Your task to perform on an android device: Open Amazon Image 0: 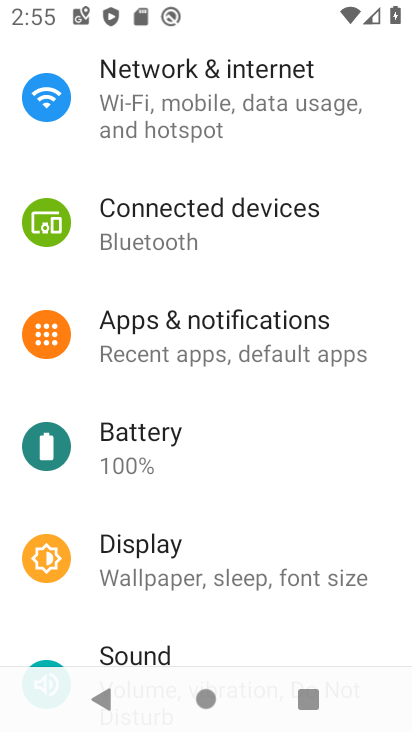
Step 0: press home button
Your task to perform on an android device: Open Amazon Image 1: 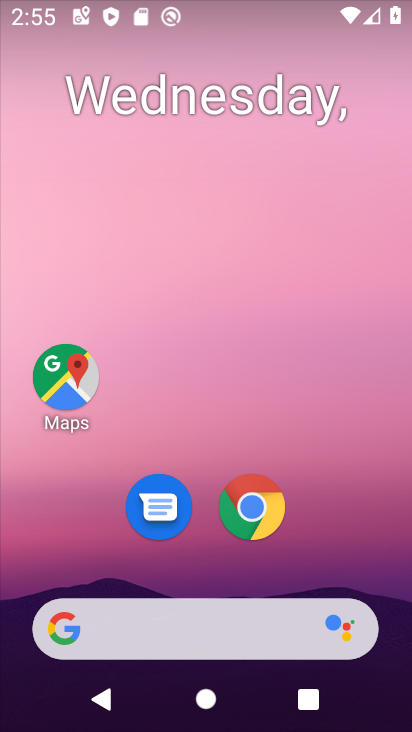
Step 1: click (258, 505)
Your task to perform on an android device: Open Amazon Image 2: 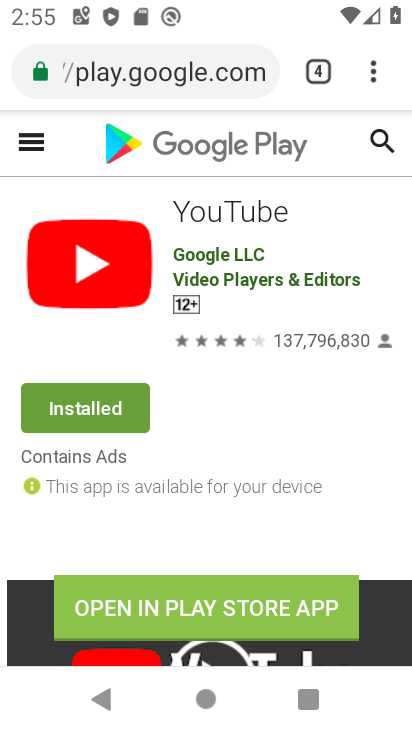
Step 2: click (328, 74)
Your task to perform on an android device: Open Amazon Image 3: 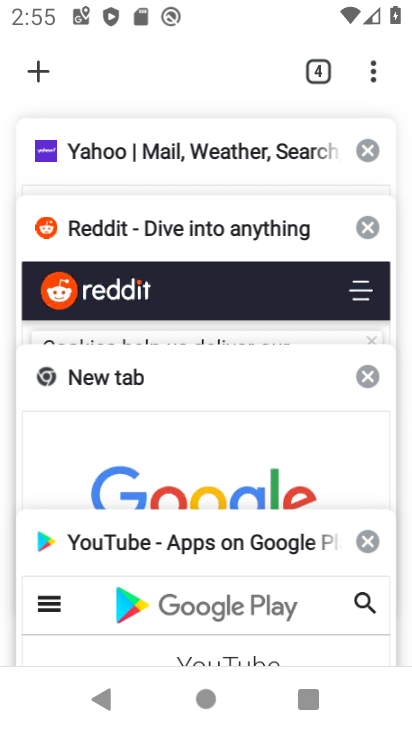
Step 3: drag from (223, 150) to (196, 546)
Your task to perform on an android device: Open Amazon Image 4: 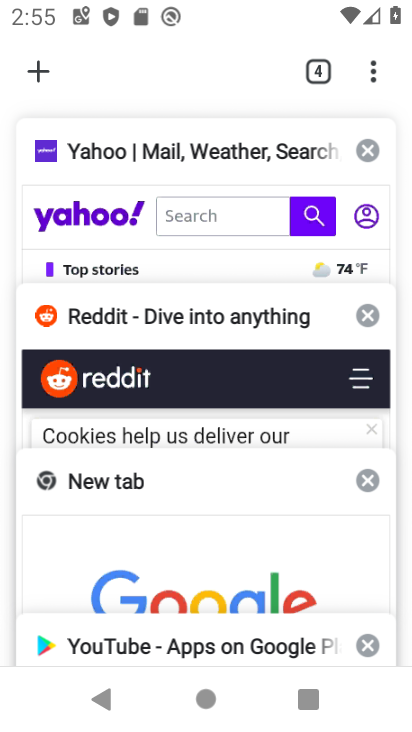
Step 4: drag from (210, 176) to (201, 463)
Your task to perform on an android device: Open Amazon Image 5: 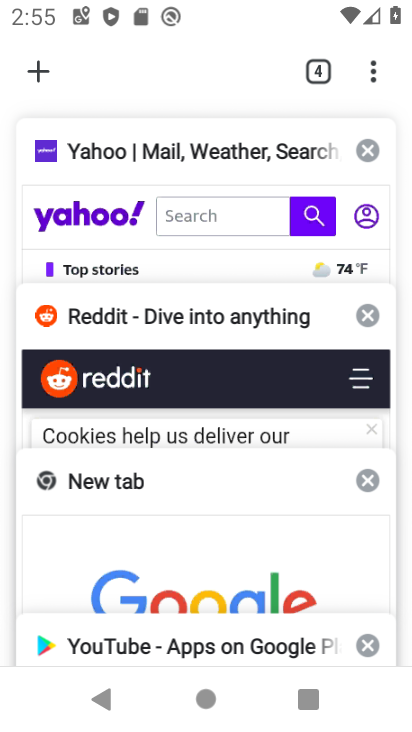
Step 5: click (44, 56)
Your task to perform on an android device: Open Amazon Image 6: 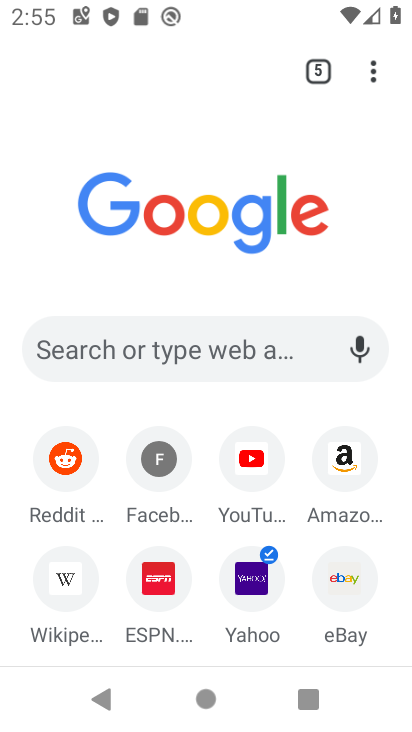
Step 6: click (337, 473)
Your task to perform on an android device: Open Amazon Image 7: 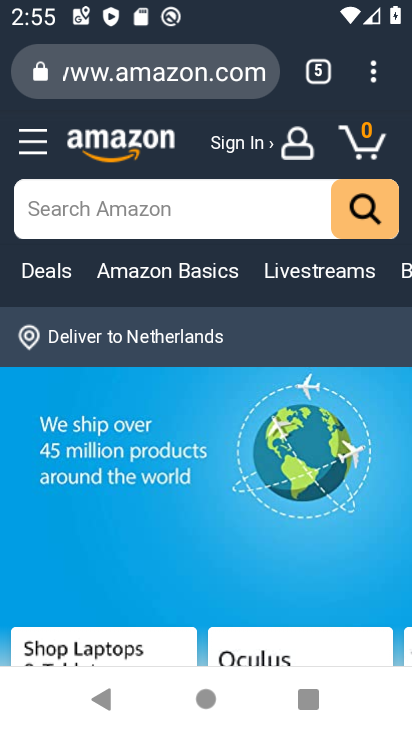
Step 7: task complete